Your task to perform on an android device: find snoozed emails in the gmail app Image 0: 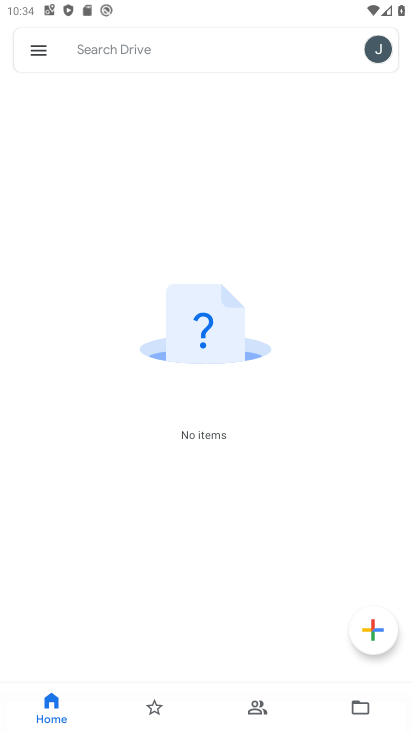
Step 0: press home button
Your task to perform on an android device: find snoozed emails in the gmail app Image 1: 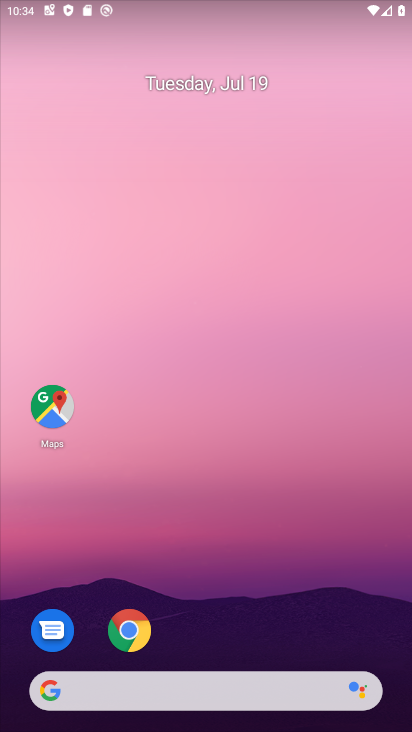
Step 1: drag from (20, 684) to (230, 87)
Your task to perform on an android device: find snoozed emails in the gmail app Image 2: 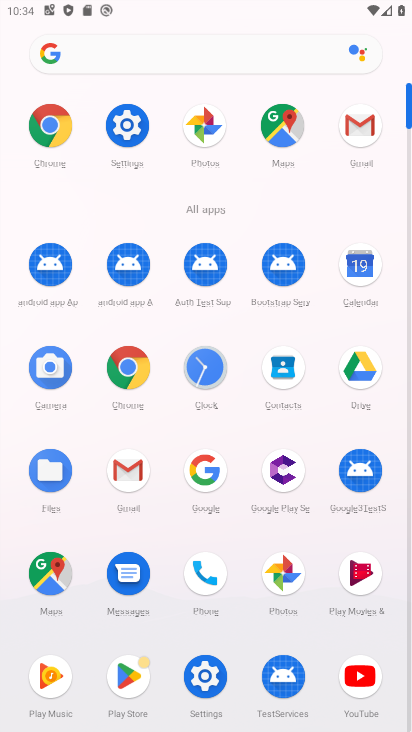
Step 2: click (370, 134)
Your task to perform on an android device: find snoozed emails in the gmail app Image 3: 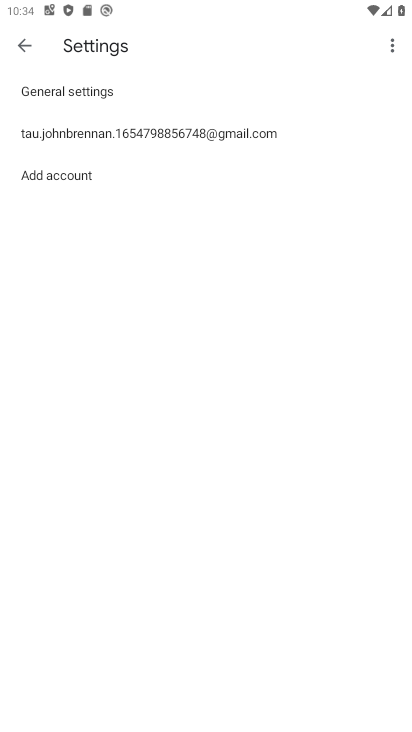
Step 3: click (27, 57)
Your task to perform on an android device: find snoozed emails in the gmail app Image 4: 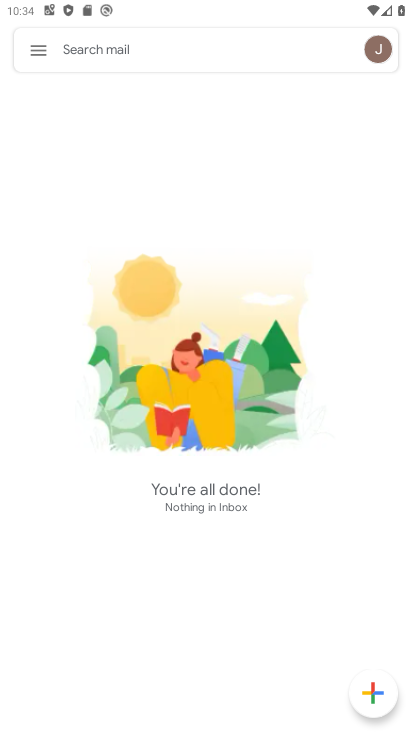
Step 4: click (46, 44)
Your task to perform on an android device: find snoozed emails in the gmail app Image 5: 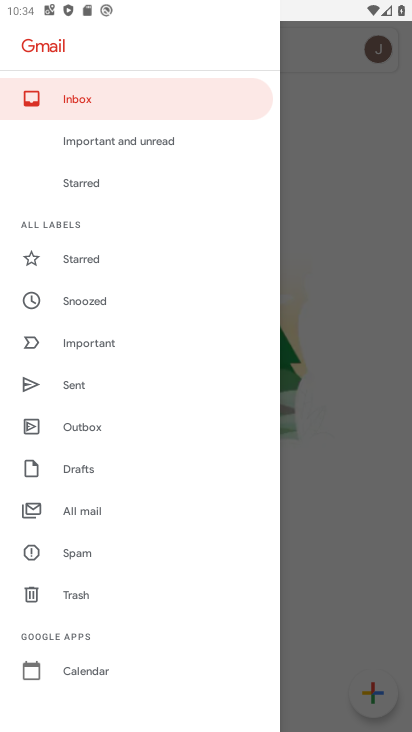
Step 5: click (88, 308)
Your task to perform on an android device: find snoozed emails in the gmail app Image 6: 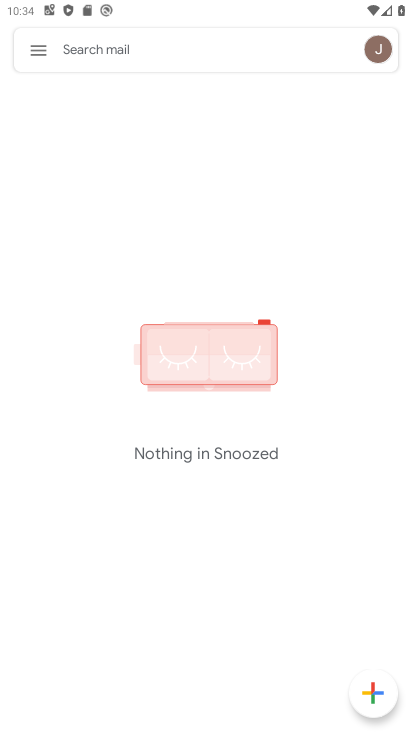
Step 6: task complete